Your task to perform on an android device: clear all cookies in the chrome app Image 0: 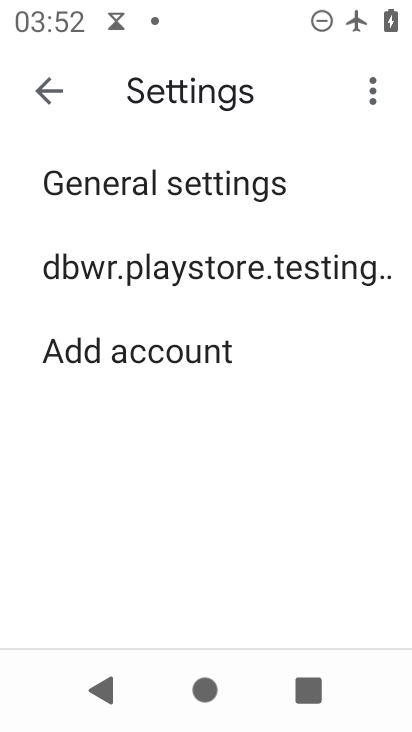
Step 0: press home button
Your task to perform on an android device: clear all cookies in the chrome app Image 1: 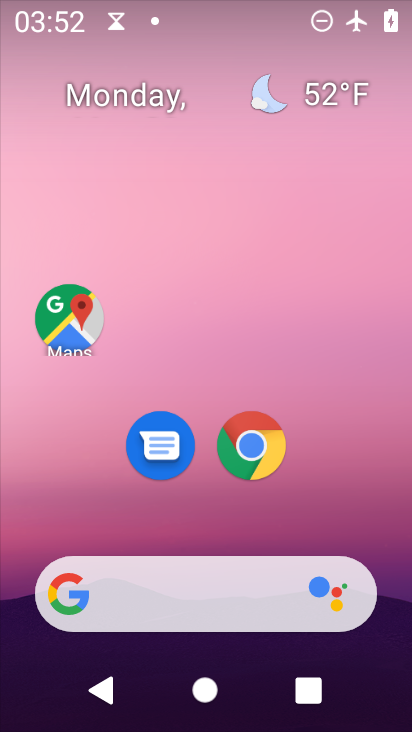
Step 1: click (249, 467)
Your task to perform on an android device: clear all cookies in the chrome app Image 2: 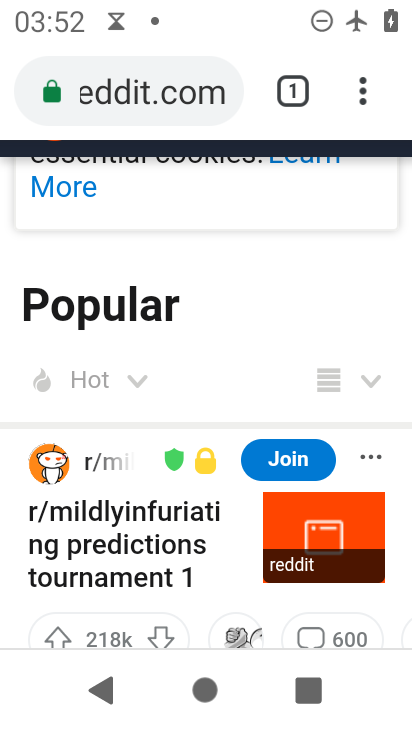
Step 2: click (373, 93)
Your task to perform on an android device: clear all cookies in the chrome app Image 3: 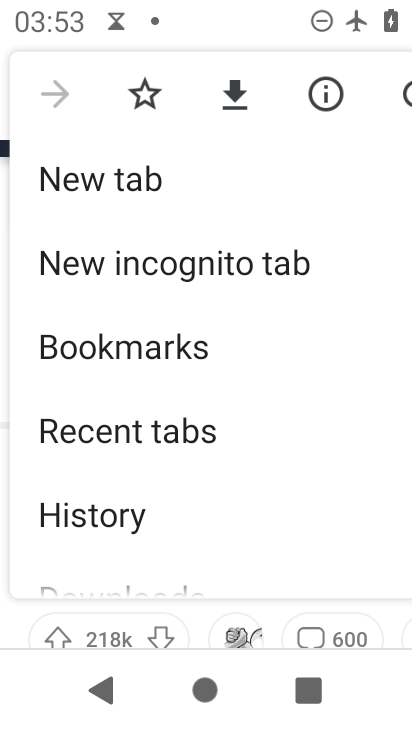
Step 3: click (150, 516)
Your task to perform on an android device: clear all cookies in the chrome app Image 4: 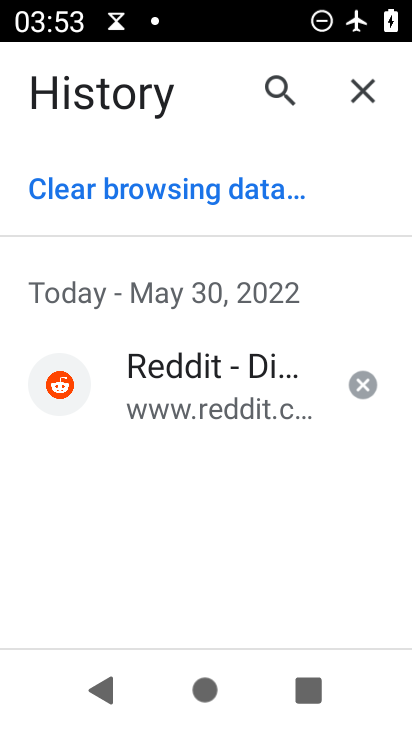
Step 4: click (195, 185)
Your task to perform on an android device: clear all cookies in the chrome app Image 5: 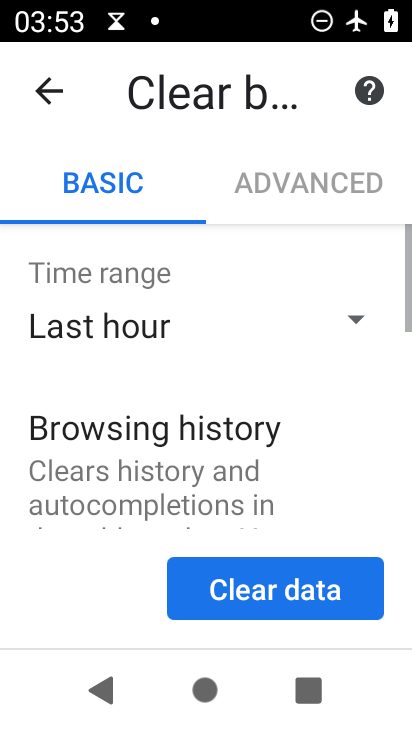
Step 5: drag from (208, 533) to (240, 235)
Your task to perform on an android device: clear all cookies in the chrome app Image 6: 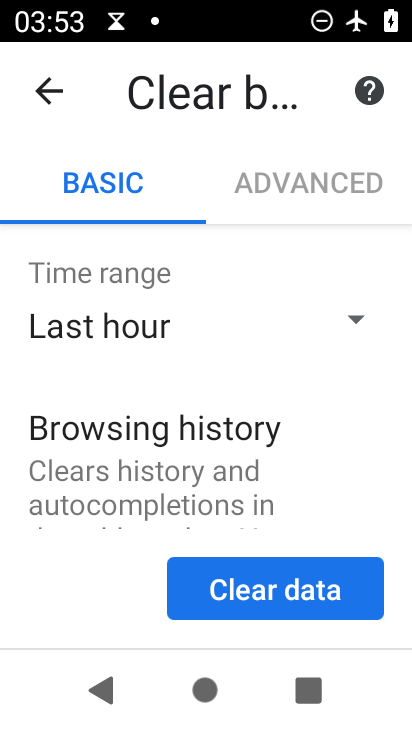
Step 6: drag from (150, 483) to (234, 160)
Your task to perform on an android device: clear all cookies in the chrome app Image 7: 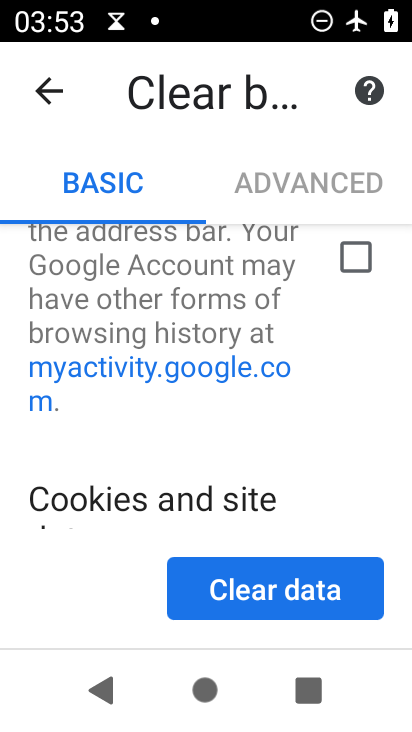
Step 7: drag from (228, 489) to (247, 241)
Your task to perform on an android device: clear all cookies in the chrome app Image 8: 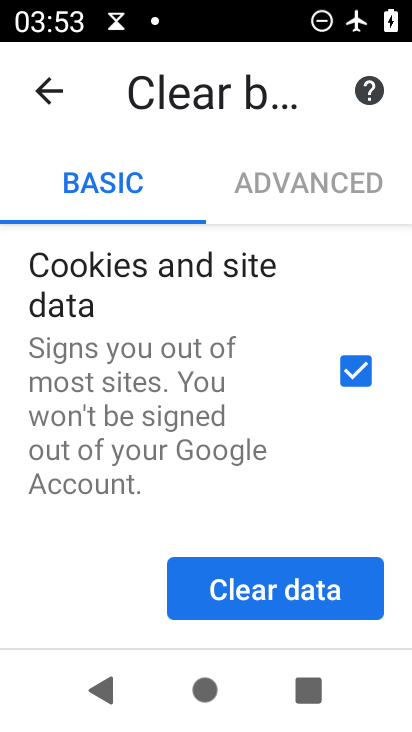
Step 8: drag from (239, 483) to (269, 268)
Your task to perform on an android device: clear all cookies in the chrome app Image 9: 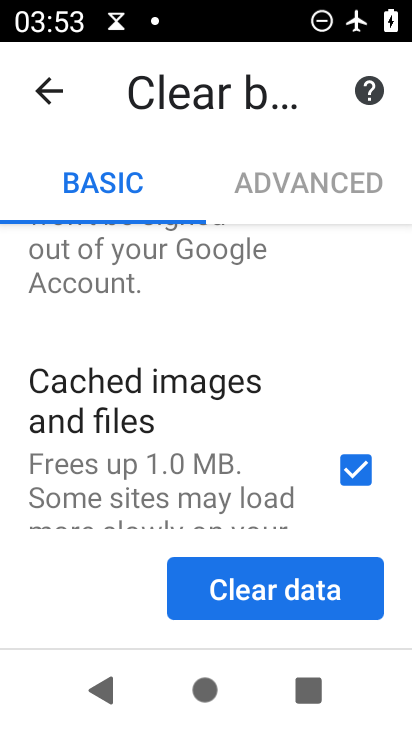
Step 9: click (338, 466)
Your task to perform on an android device: clear all cookies in the chrome app Image 10: 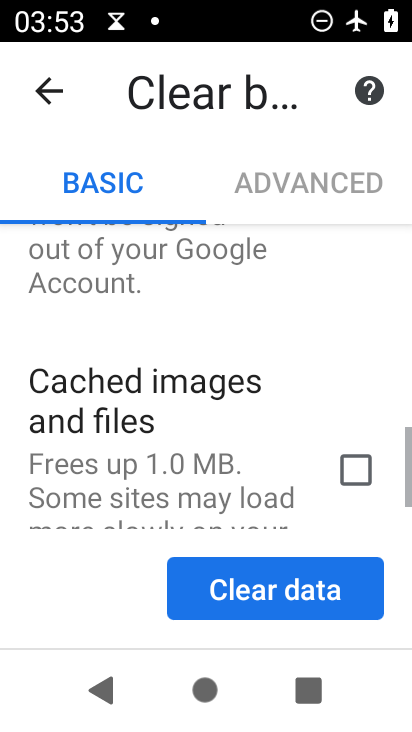
Step 10: click (298, 593)
Your task to perform on an android device: clear all cookies in the chrome app Image 11: 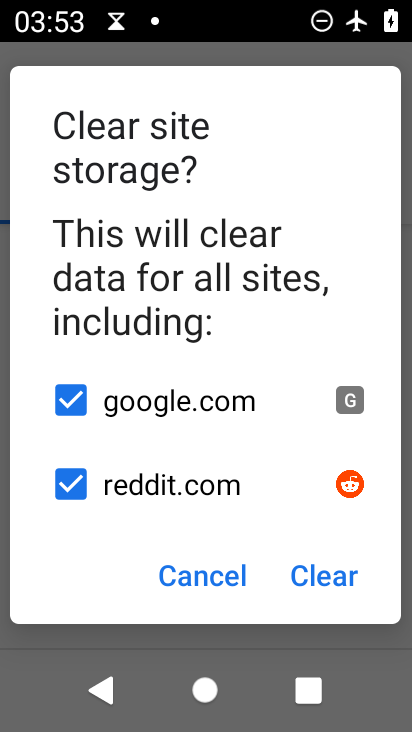
Step 11: click (315, 582)
Your task to perform on an android device: clear all cookies in the chrome app Image 12: 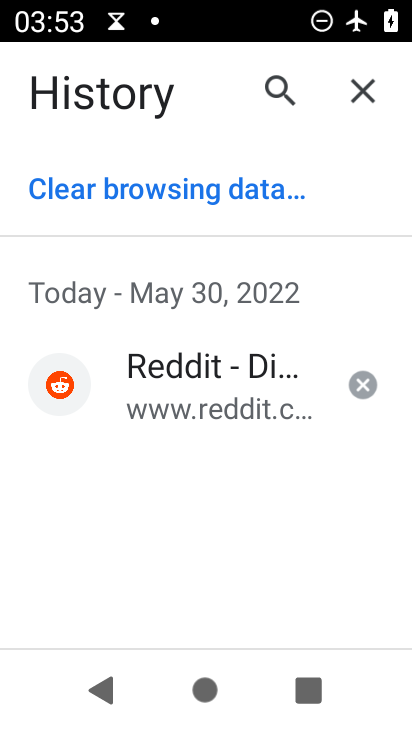
Step 12: task complete